Your task to perform on an android device: Open my contact list Image 0: 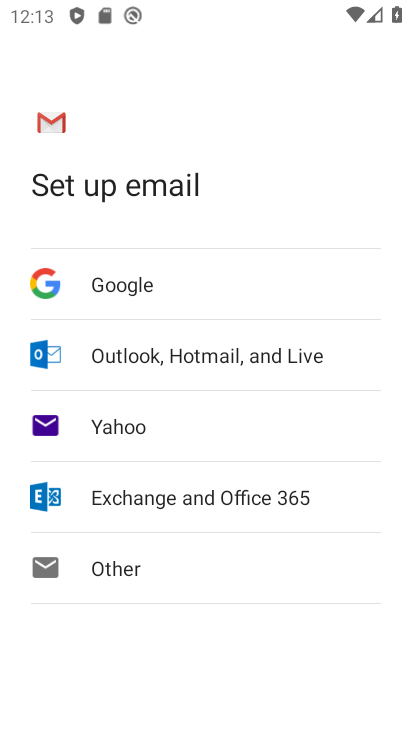
Step 0: press home button
Your task to perform on an android device: Open my contact list Image 1: 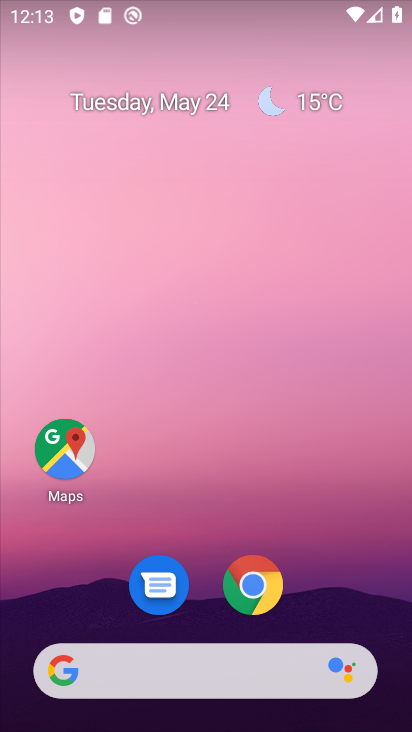
Step 1: drag from (199, 531) to (192, 45)
Your task to perform on an android device: Open my contact list Image 2: 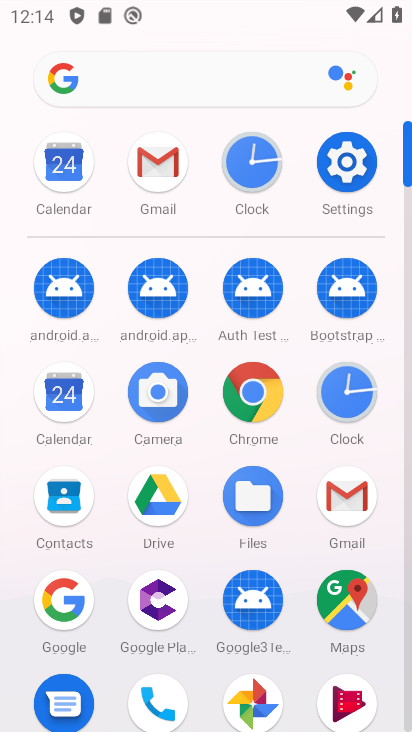
Step 2: click (76, 493)
Your task to perform on an android device: Open my contact list Image 3: 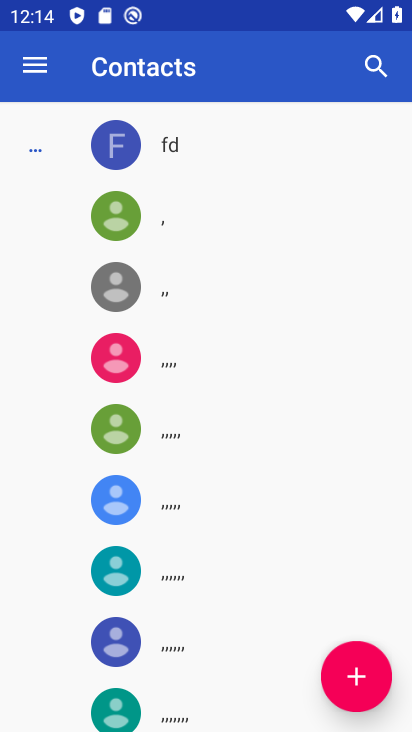
Step 3: task complete